Your task to perform on an android device: change text size in settings app Image 0: 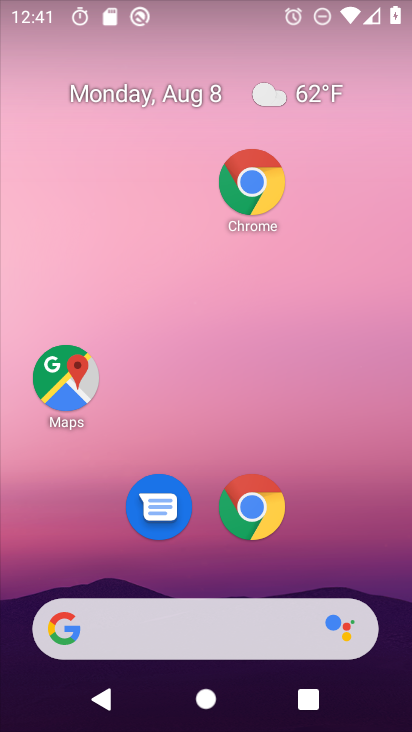
Step 0: drag from (355, 567) to (332, 51)
Your task to perform on an android device: change text size in settings app Image 1: 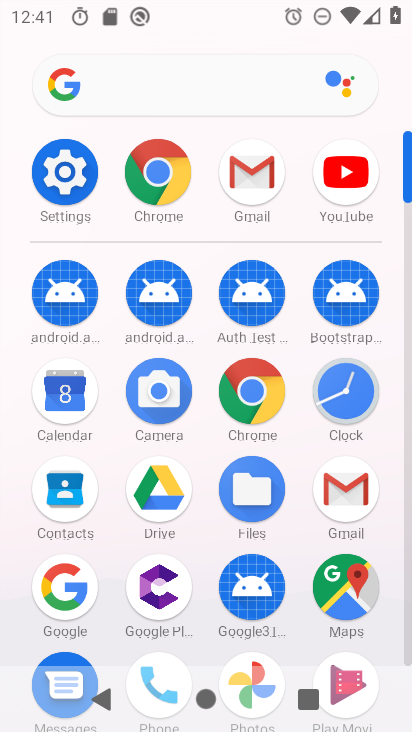
Step 1: click (64, 169)
Your task to perform on an android device: change text size in settings app Image 2: 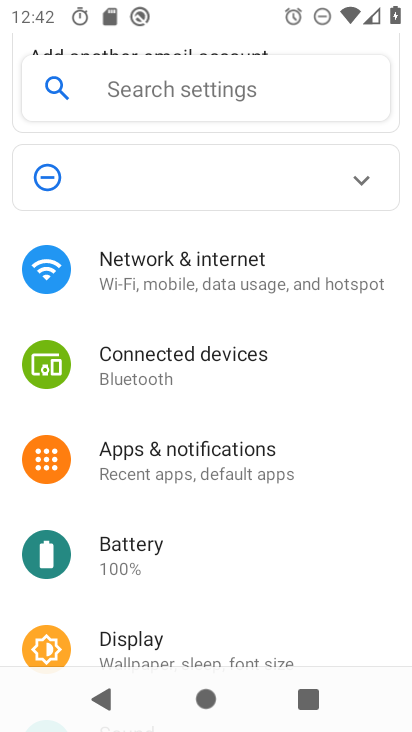
Step 2: drag from (224, 571) to (251, 139)
Your task to perform on an android device: change text size in settings app Image 3: 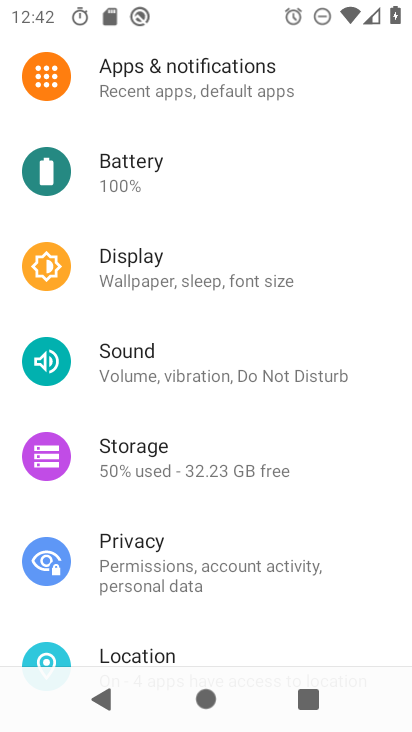
Step 3: drag from (301, 604) to (305, 175)
Your task to perform on an android device: change text size in settings app Image 4: 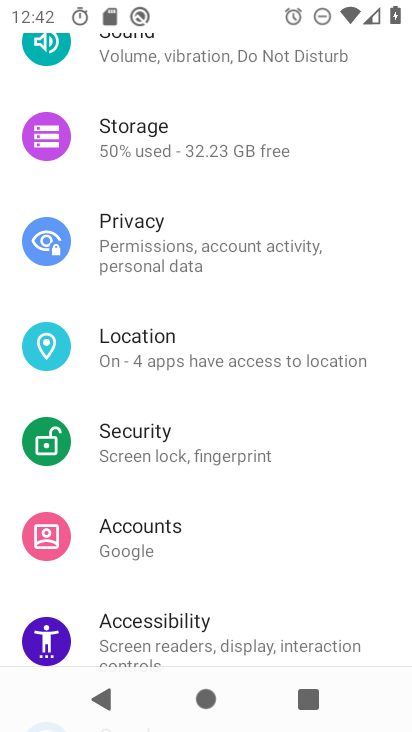
Step 4: drag from (292, 561) to (301, 170)
Your task to perform on an android device: change text size in settings app Image 5: 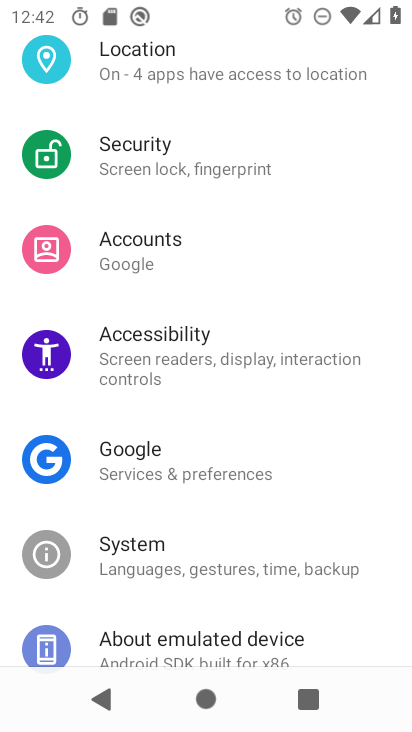
Step 5: drag from (279, 208) to (303, 711)
Your task to perform on an android device: change text size in settings app Image 6: 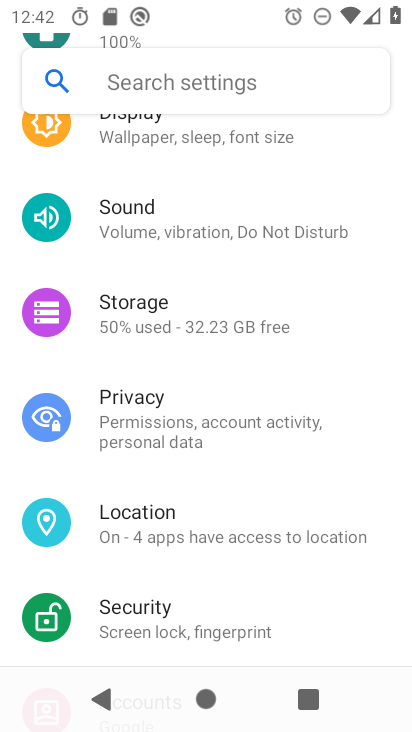
Step 6: click (191, 139)
Your task to perform on an android device: change text size in settings app Image 7: 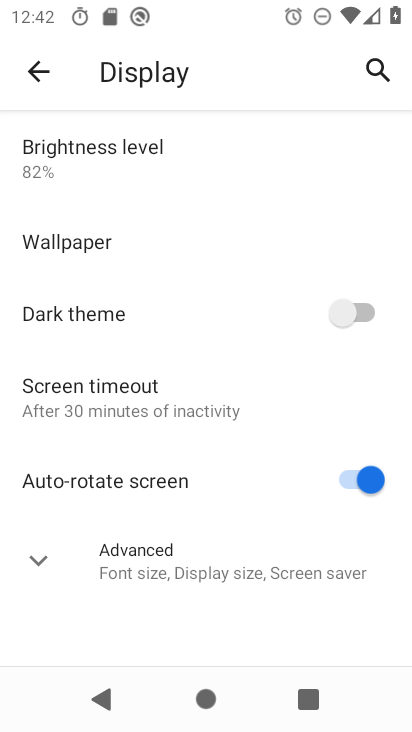
Step 7: drag from (139, 396) to (213, 136)
Your task to perform on an android device: change text size in settings app Image 8: 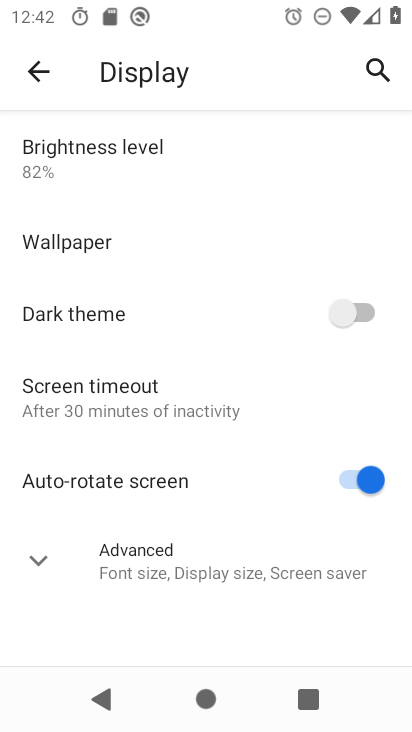
Step 8: click (135, 564)
Your task to perform on an android device: change text size in settings app Image 9: 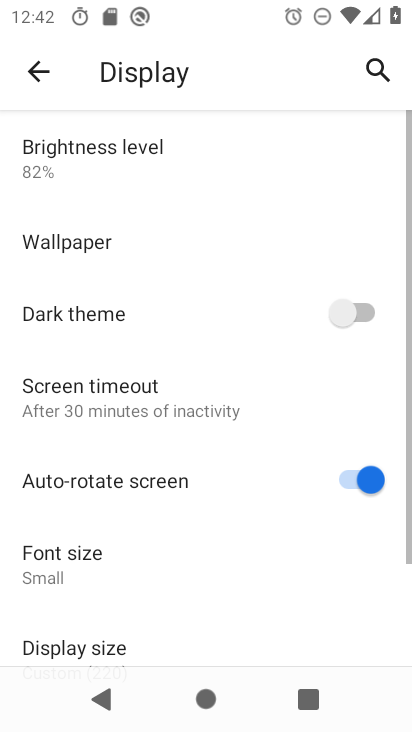
Step 9: click (65, 569)
Your task to perform on an android device: change text size in settings app Image 10: 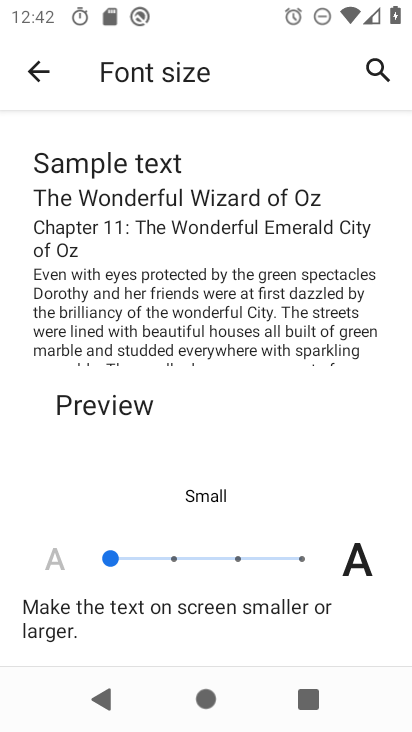
Step 10: click (147, 527)
Your task to perform on an android device: change text size in settings app Image 11: 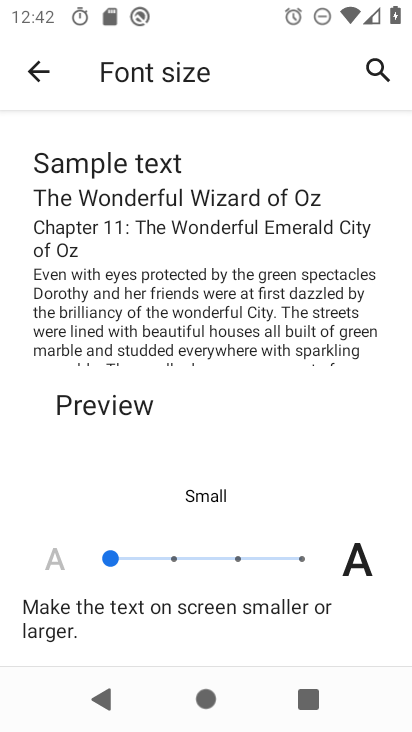
Step 11: click (142, 545)
Your task to perform on an android device: change text size in settings app Image 12: 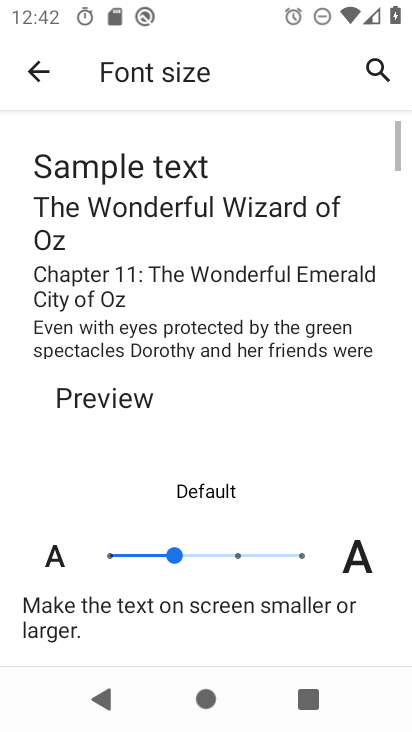
Step 12: task complete